Your task to perform on an android device: change the clock display to show seconds Image 0: 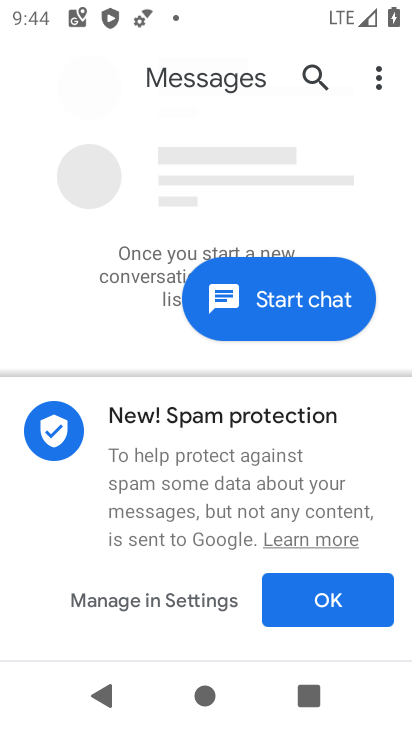
Step 0: press home button
Your task to perform on an android device: change the clock display to show seconds Image 1: 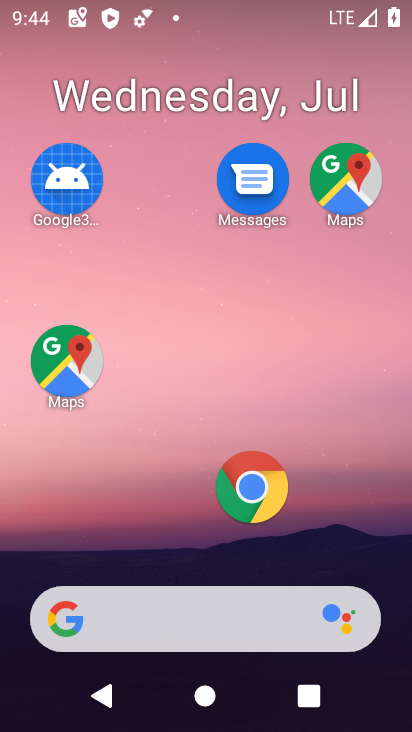
Step 1: drag from (195, 583) to (203, 177)
Your task to perform on an android device: change the clock display to show seconds Image 2: 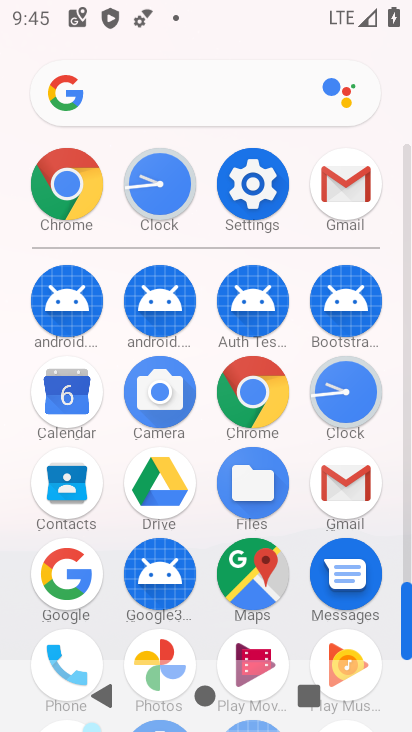
Step 2: click (153, 214)
Your task to perform on an android device: change the clock display to show seconds Image 3: 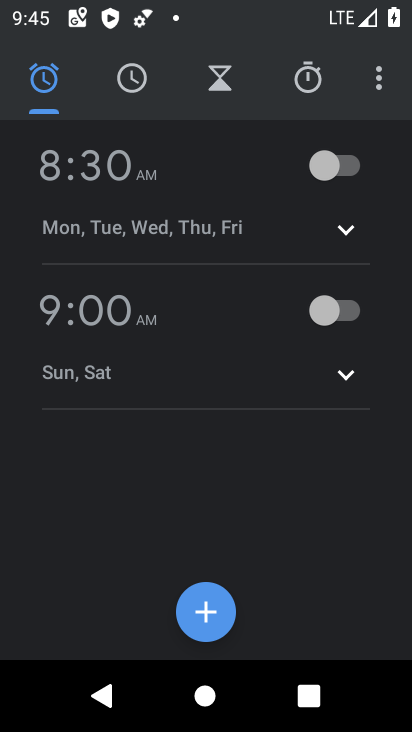
Step 3: click (384, 80)
Your task to perform on an android device: change the clock display to show seconds Image 4: 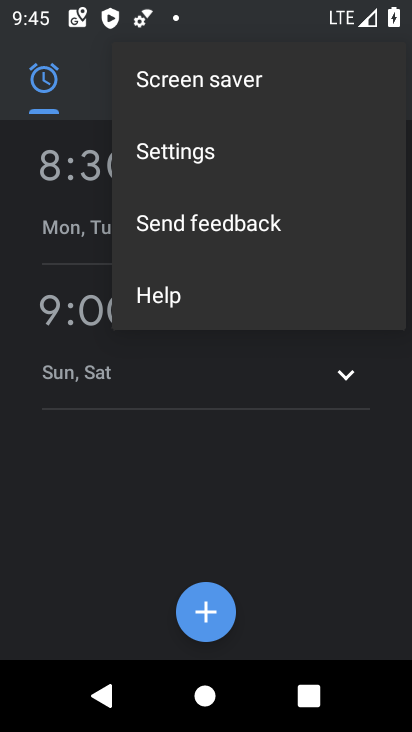
Step 4: click (180, 152)
Your task to perform on an android device: change the clock display to show seconds Image 5: 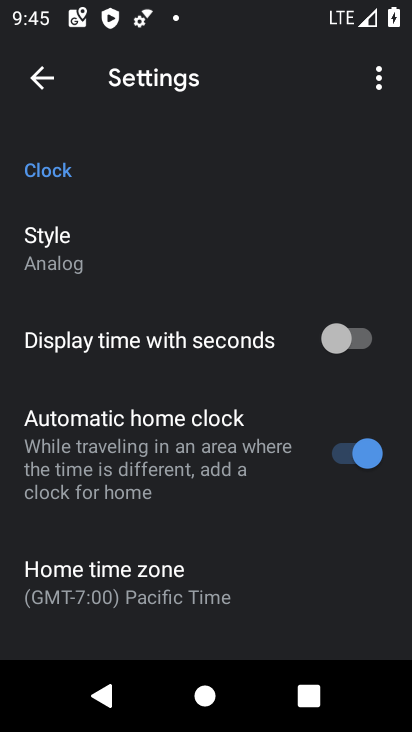
Step 5: click (330, 347)
Your task to perform on an android device: change the clock display to show seconds Image 6: 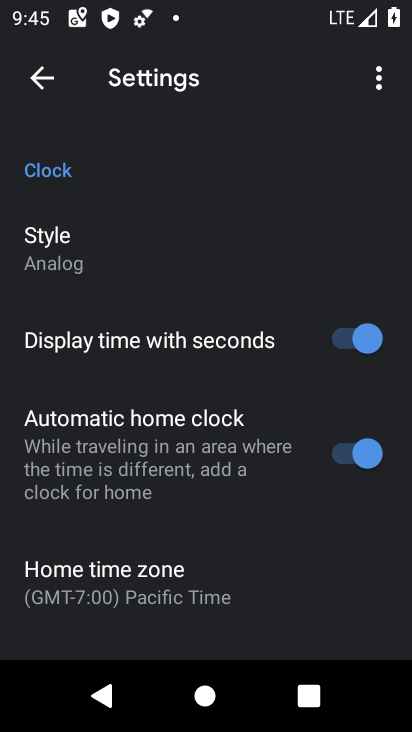
Step 6: task complete